Your task to perform on an android device: Turn on the flashlight Image 0: 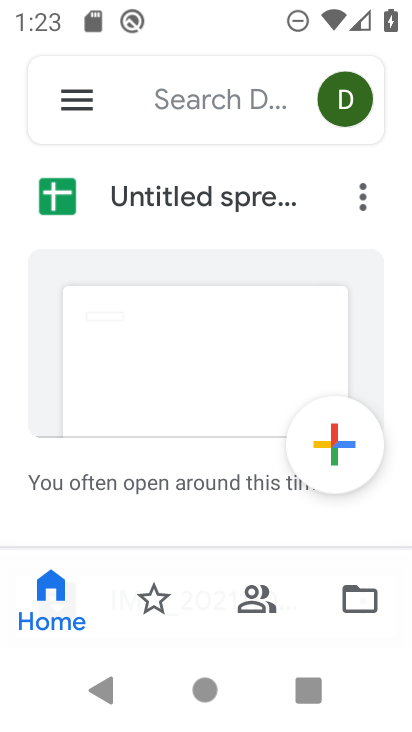
Step 0: press home button
Your task to perform on an android device: Turn on the flashlight Image 1: 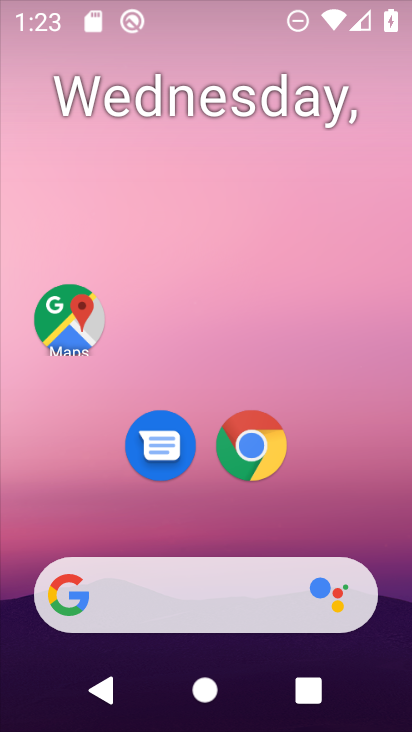
Step 1: drag from (388, 640) to (283, 79)
Your task to perform on an android device: Turn on the flashlight Image 2: 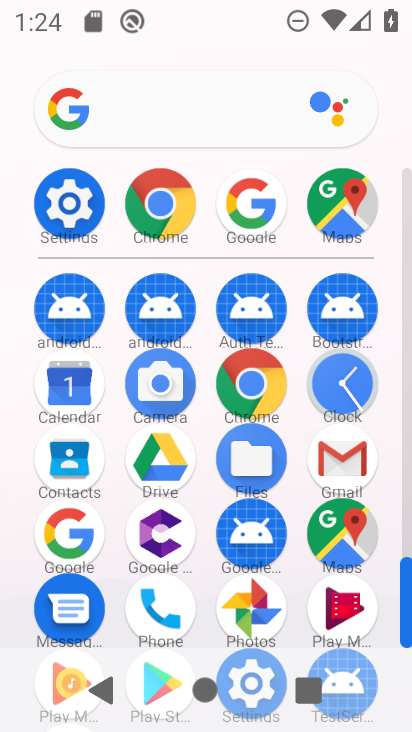
Step 2: click (83, 201)
Your task to perform on an android device: Turn on the flashlight Image 3: 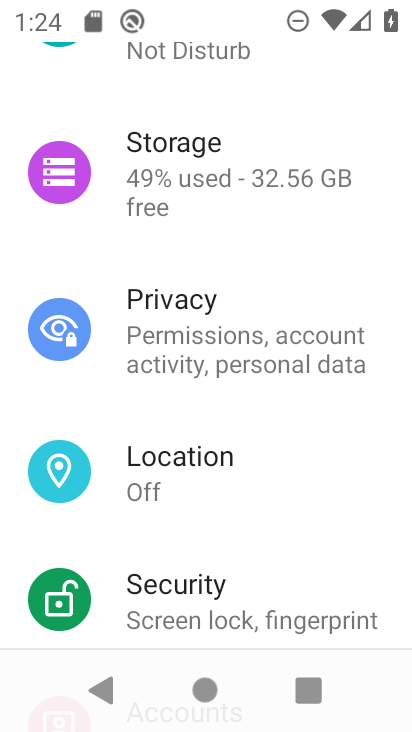
Step 3: task complete